Your task to perform on an android device: toggle data saver in the chrome app Image 0: 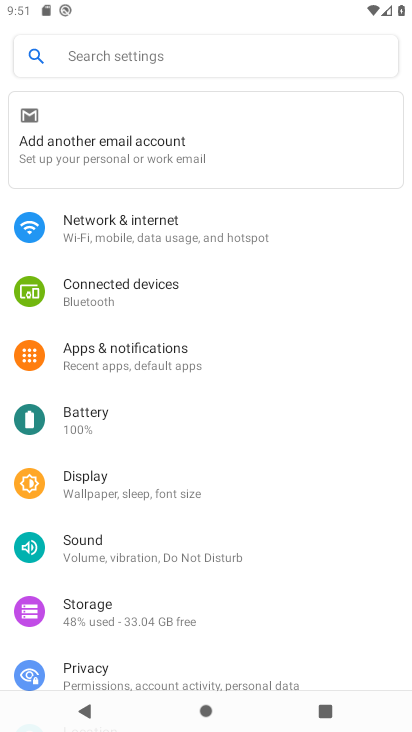
Step 0: press home button
Your task to perform on an android device: toggle data saver in the chrome app Image 1: 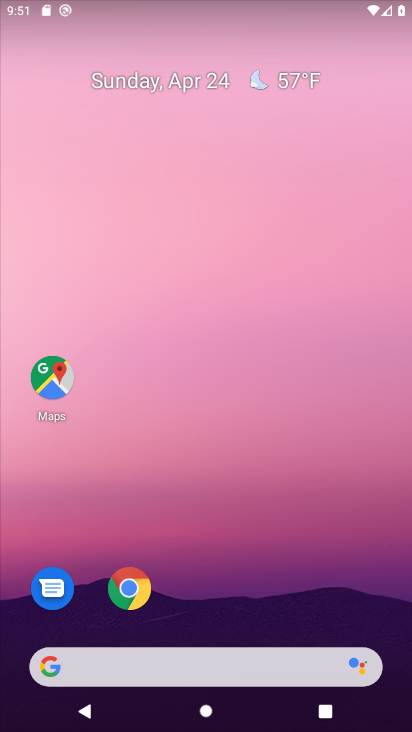
Step 1: click (139, 588)
Your task to perform on an android device: toggle data saver in the chrome app Image 2: 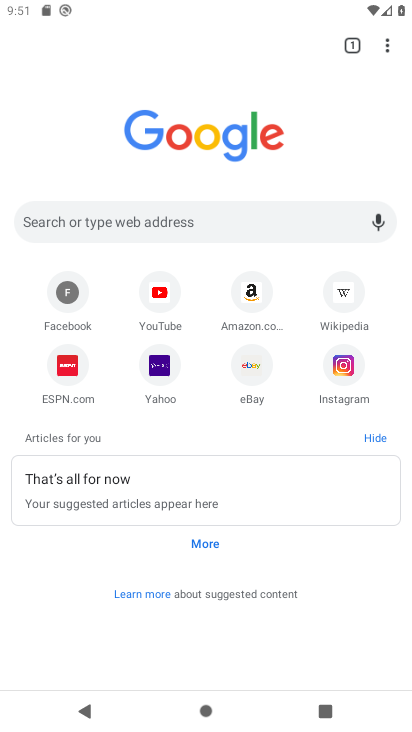
Step 2: click (390, 42)
Your task to perform on an android device: toggle data saver in the chrome app Image 3: 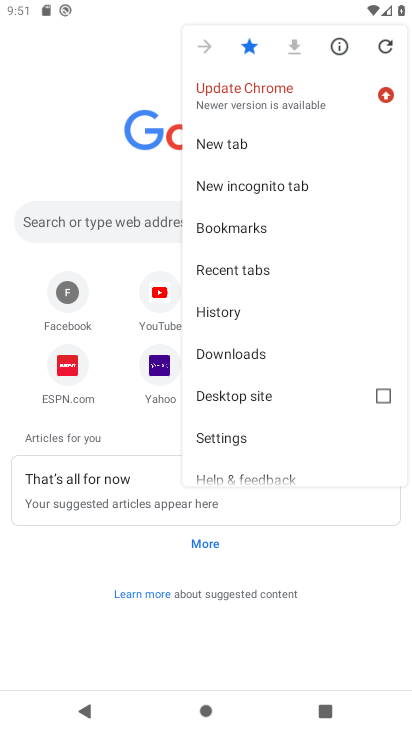
Step 3: click (260, 433)
Your task to perform on an android device: toggle data saver in the chrome app Image 4: 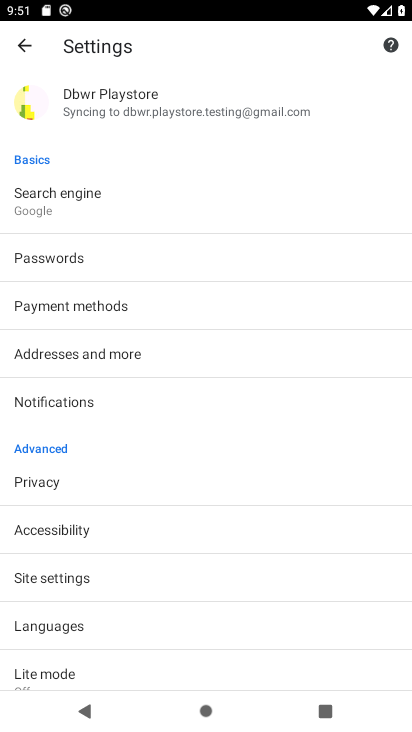
Step 4: click (100, 665)
Your task to perform on an android device: toggle data saver in the chrome app Image 5: 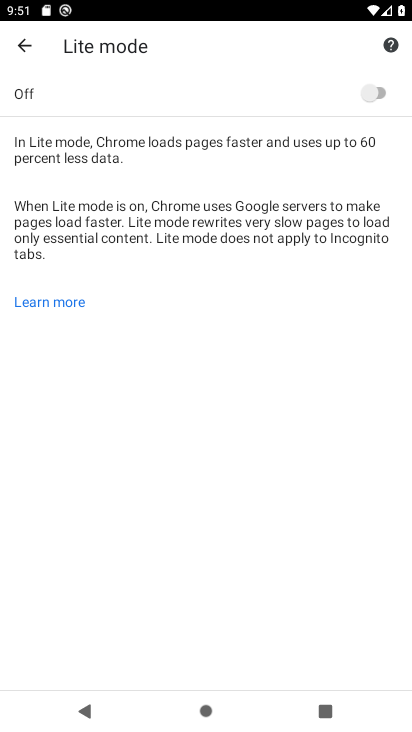
Step 5: click (386, 89)
Your task to perform on an android device: toggle data saver in the chrome app Image 6: 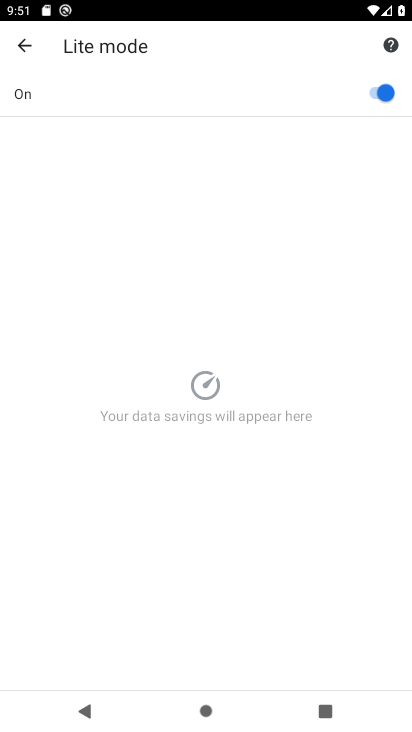
Step 6: task complete